Your task to perform on an android device: open app "Flipkart Online Shopping App" (install if not already installed) and go to login screen Image 0: 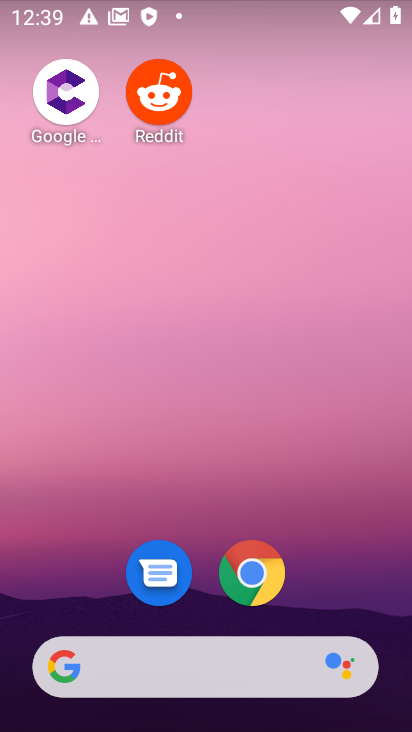
Step 0: drag from (313, 508) to (336, 30)
Your task to perform on an android device: open app "Flipkart Online Shopping App" (install if not already installed) and go to login screen Image 1: 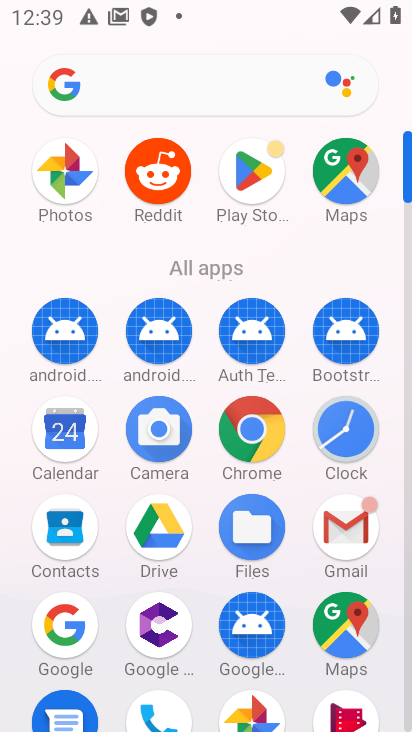
Step 1: click (245, 164)
Your task to perform on an android device: open app "Flipkart Online Shopping App" (install if not already installed) and go to login screen Image 2: 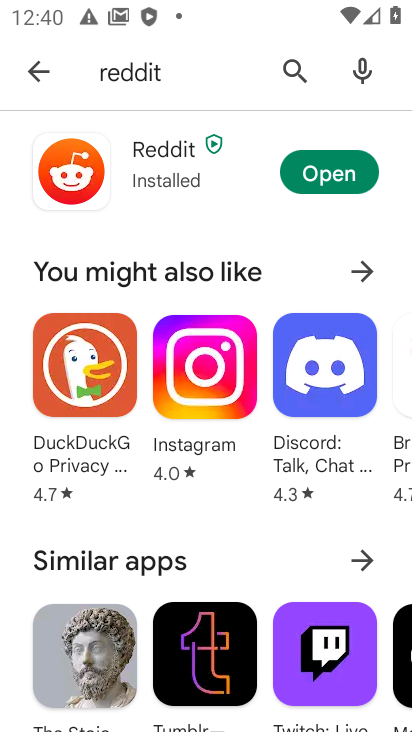
Step 2: click (287, 65)
Your task to perform on an android device: open app "Flipkart Online Shopping App" (install if not already installed) and go to login screen Image 3: 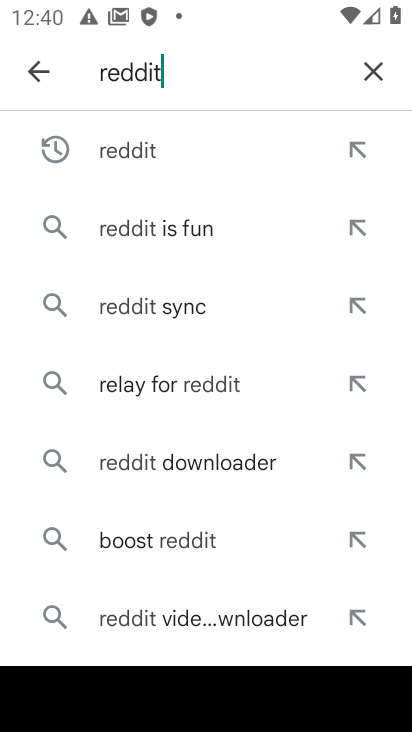
Step 3: click (371, 78)
Your task to perform on an android device: open app "Flipkart Online Shopping App" (install if not already installed) and go to login screen Image 4: 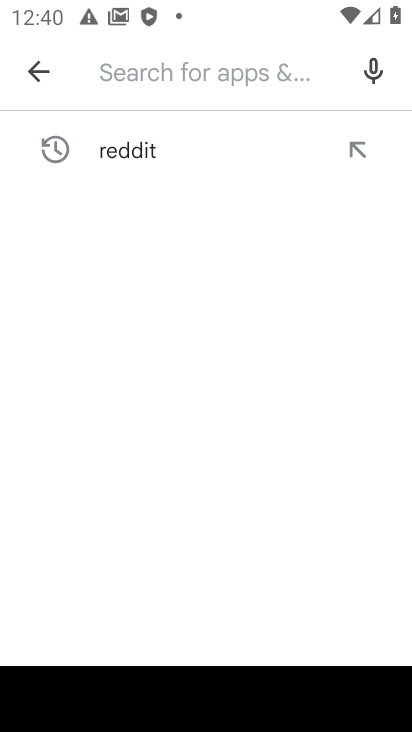
Step 4: type "Flipkart Online Shopping App"
Your task to perform on an android device: open app "Flipkart Online Shopping App" (install if not already installed) and go to login screen Image 5: 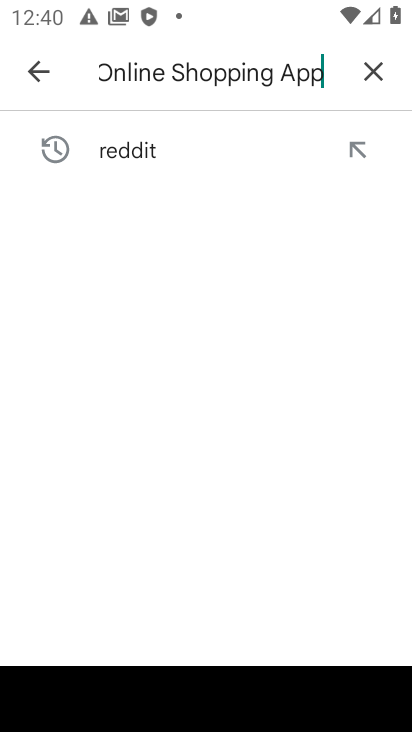
Step 5: type ""
Your task to perform on an android device: open app "Flipkart Online Shopping App" (install if not already installed) and go to login screen Image 6: 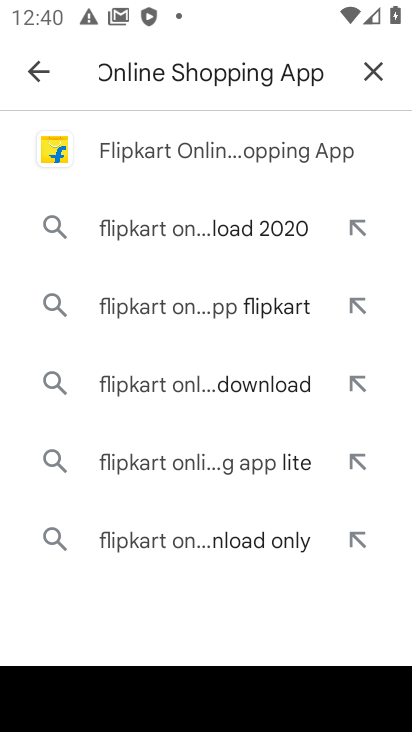
Step 6: click (236, 147)
Your task to perform on an android device: open app "Flipkart Online Shopping App" (install if not already installed) and go to login screen Image 7: 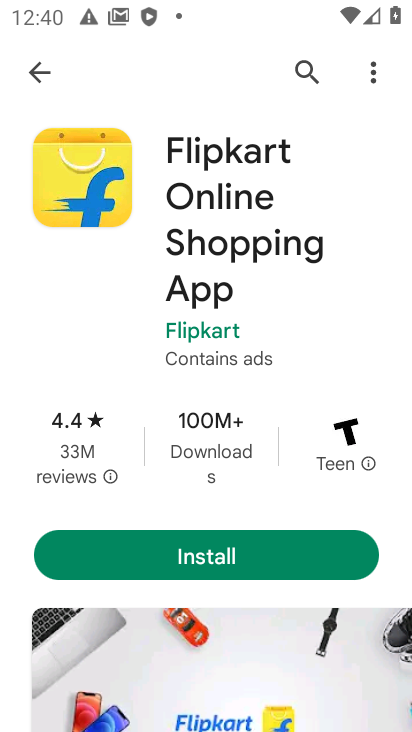
Step 7: click (209, 550)
Your task to perform on an android device: open app "Flipkart Online Shopping App" (install if not already installed) and go to login screen Image 8: 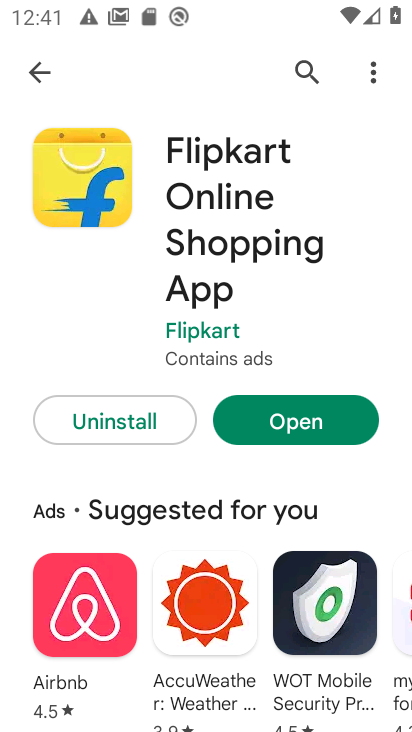
Step 8: click (304, 429)
Your task to perform on an android device: open app "Flipkart Online Shopping App" (install if not already installed) and go to login screen Image 9: 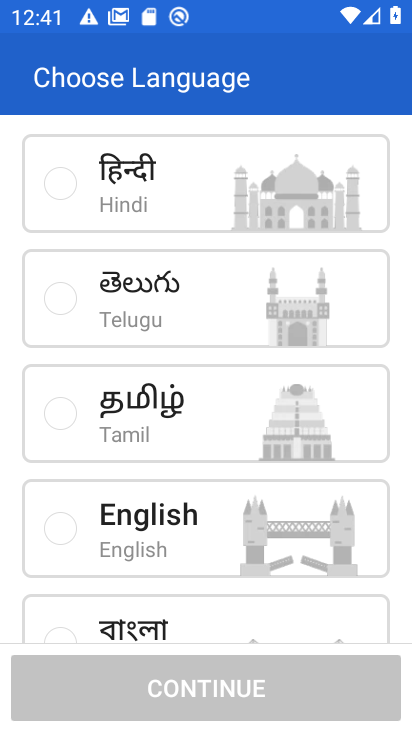
Step 9: click (63, 519)
Your task to perform on an android device: open app "Flipkart Online Shopping App" (install if not already installed) and go to login screen Image 10: 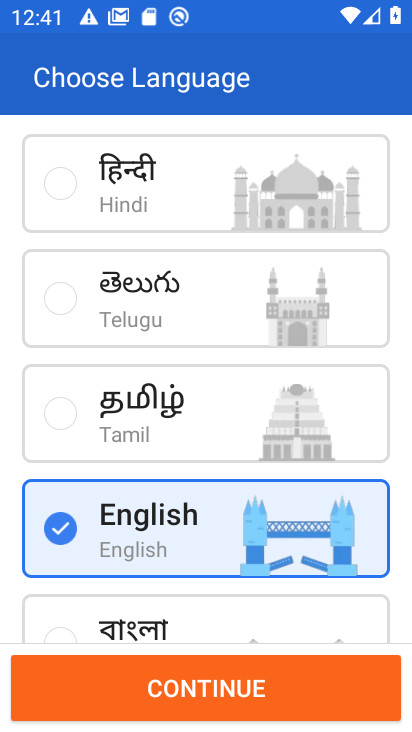
Step 10: click (211, 695)
Your task to perform on an android device: open app "Flipkart Online Shopping App" (install if not already installed) and go to login screen Image 11: 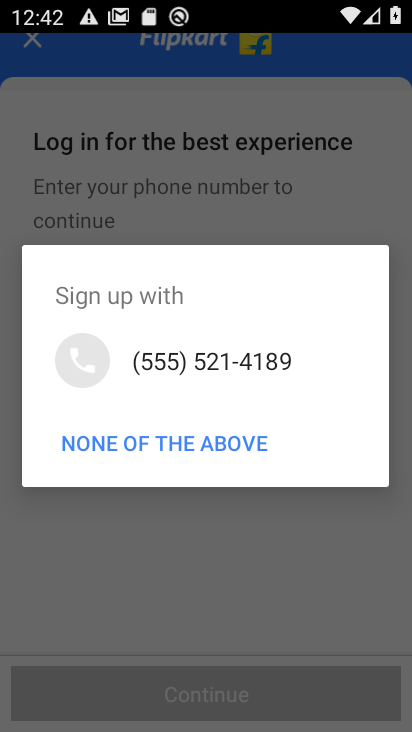
Step 11: click (200, 378)
Your task to perform on an android device: open app "Flipkart Online Shopping App" (install if not already installed) and go to login screen Image 12: 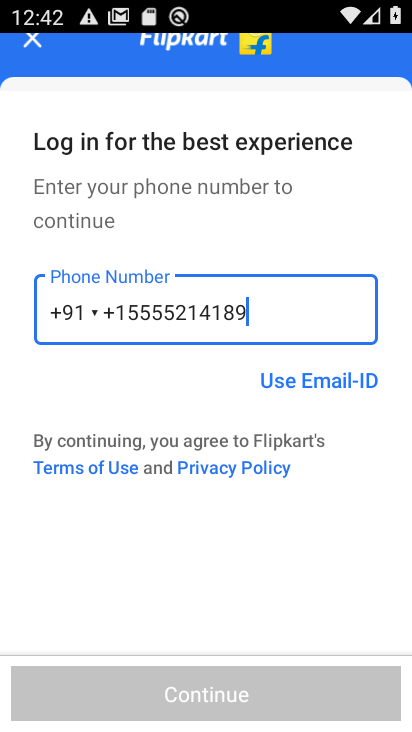
Step 12: click (275, 304)
Your task to perform on an android device: open app "Flipkart Online Shopping App" (install if not already installed) and go to login screen Image 13: 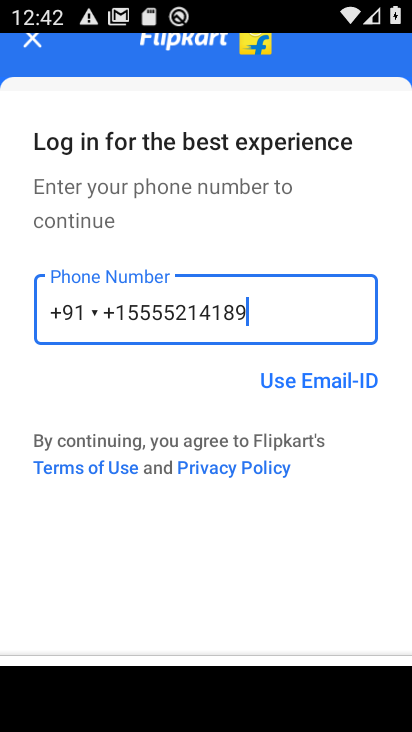
Step 13: drag from (250, 324) to (95, 324)
Your task to perform on an android device: open app "Flipkart Online Shopping App" (install if not already installed) and go to login screen Image 14: 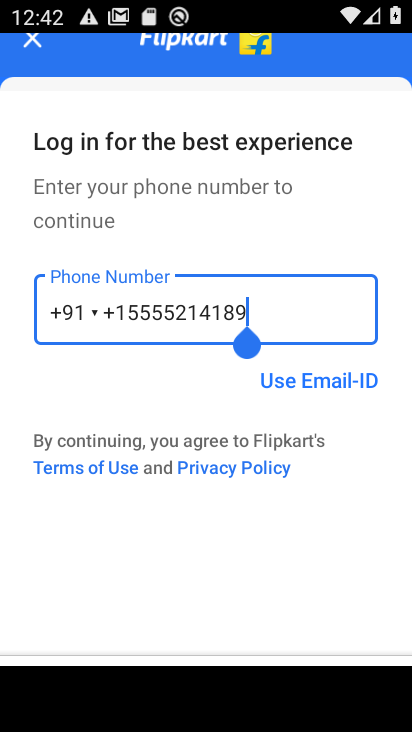
Step 14: click (111, 313)
Your task to perform on an android device: open app "Flipkart Online Shopping App" (install if not already installed) and go to login screen Image 15: 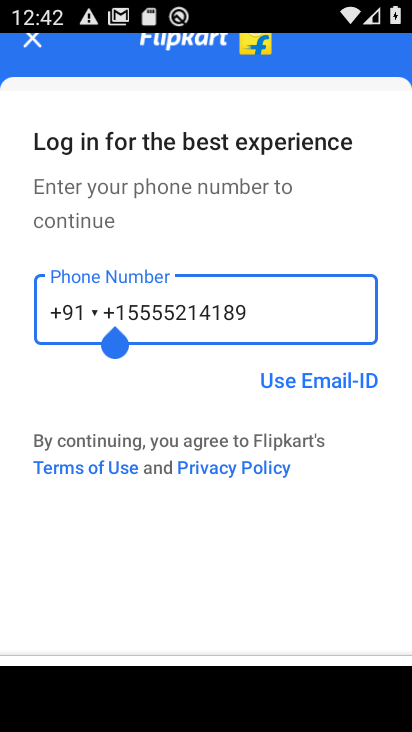
Step 15: click (177, 315)
Your task to perform on an android device: open app "Flipkart Online Shopping App" (install if not already installed) and go to login screen Image 16: 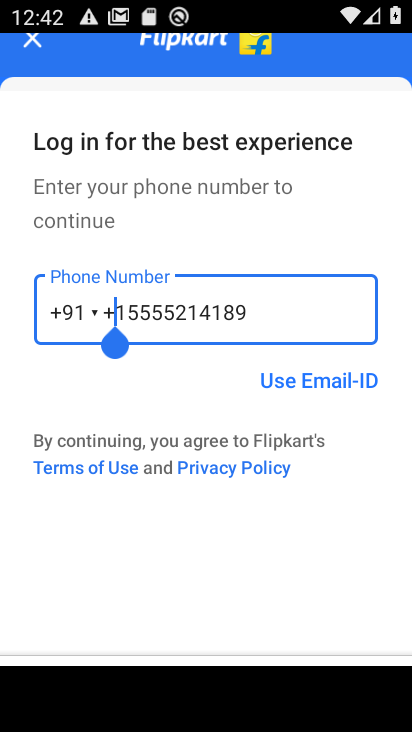
Step 16: click (177, 315)
Your task to perform on an android device: open app "Flipkart Online Shopping App" (install if not already installed) and go to login screen Image 17: 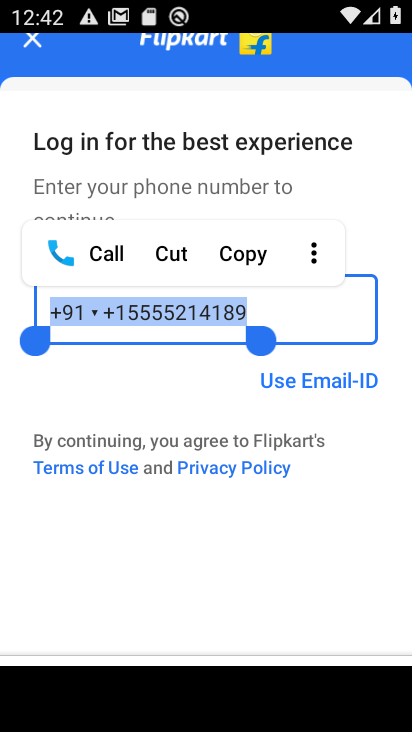
Step 17: drag from (35, 339) to (88, 338)
Your task to perform on an android device: open app "Flipkart Online Shopping App" (install if not already installed) and go to login screen Image 18: 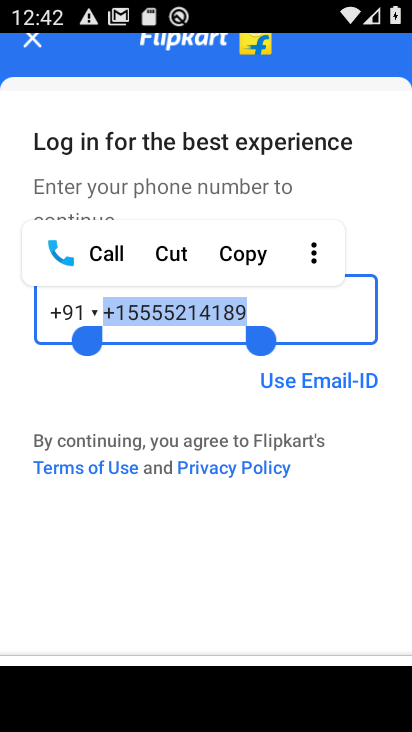
Step 18: click (158, 258)
Your task to perform on an android device: open app "Flipkart Online Shopping App" (install if not already installed) and go to login screen Image 19: 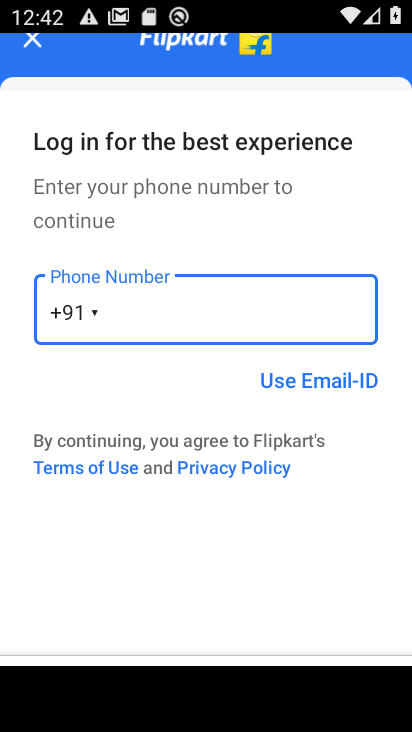
Step 19: type "9876543210"
Your task to perform on an android device: open app "Flipkart Online Shopping App" (install if not already installed) and go to login screen Image 20: 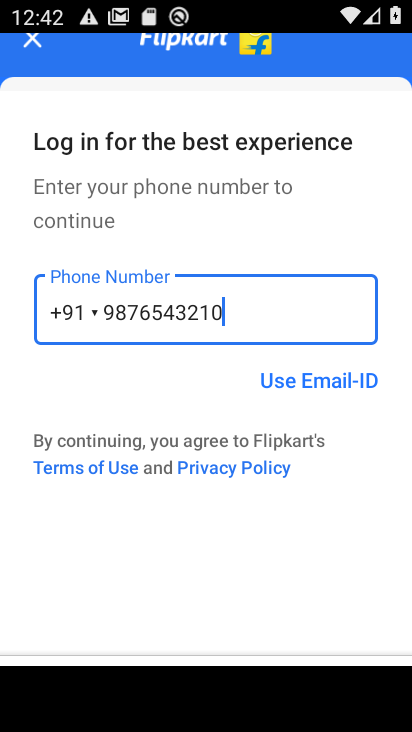
Step 20: type ""
Your task to perform on an android device: open app "Flipkart Online Shopping App" (install if not already installed) and go to login screen Image 21: 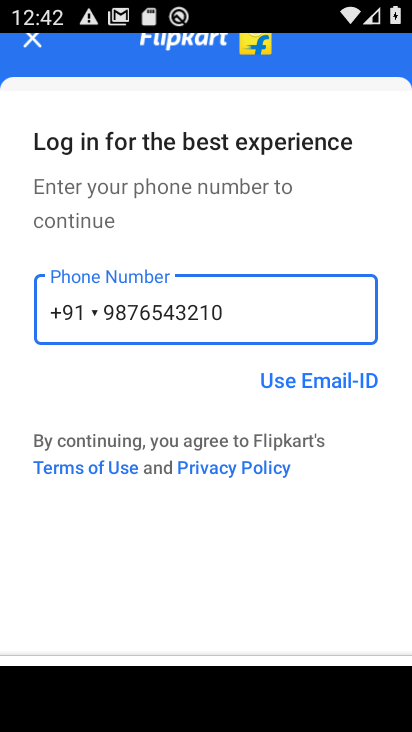
Step 21: drag from (232, 566) to (203, 183)
Your task to perform on an android device: open app "Flipkart Online Shopping App" (install if not already installed) and go to login screen Image 22: 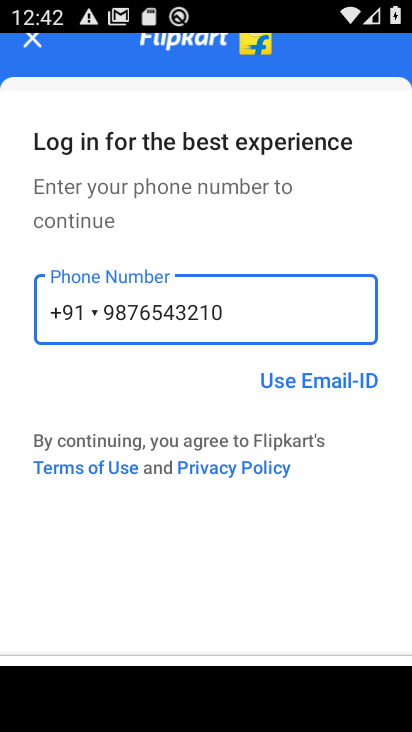
Step 22: drag from (224, 548) to (221, 161)
Your task to perform on an android device: open app "Flipkart Online Shopping App" (install if not already installed) and go to login screen Image 23: 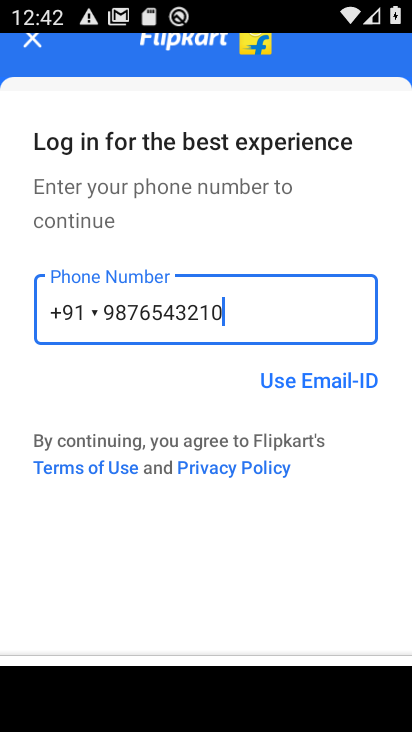
Step 23: click (37, 43)
Your task to perform on an android device: open app "Flipkart Online Shopping App" (install if not already installed) and go to login screen Image 24: 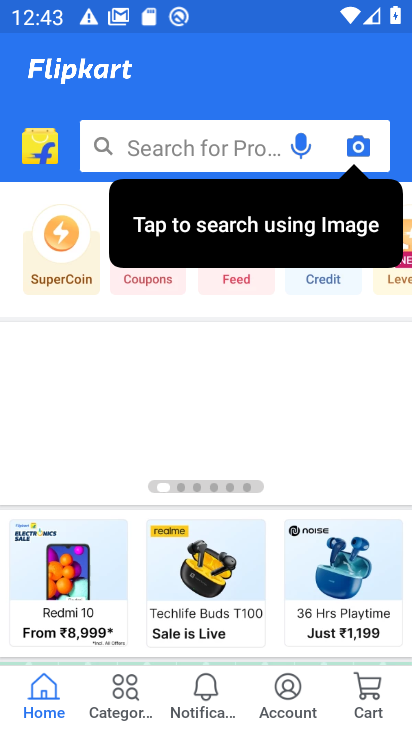
Step 24: task complete